Your task to perform on an android device: Show me recent news Image 0: 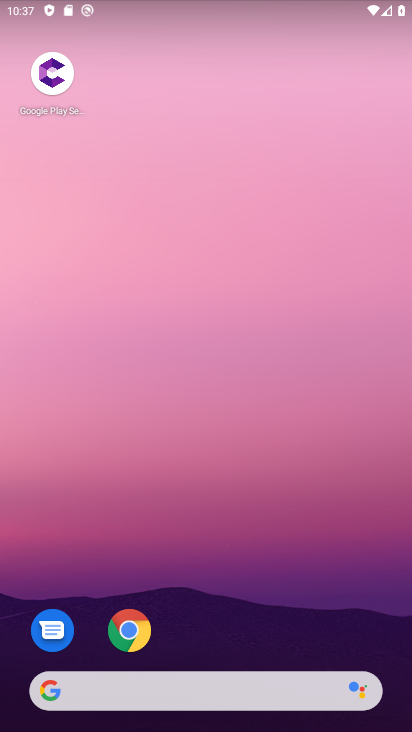
Step 0: drag from (0, 228) to (366, 275)
Your task to perform on an android device: Show me recent news Image 1: 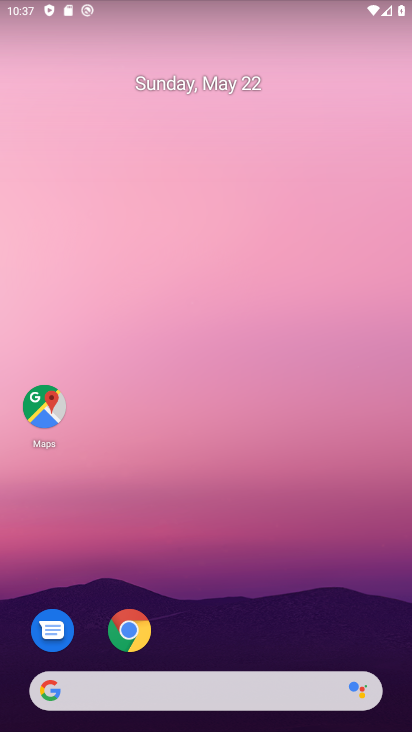
Step 1: task complete